Your task to perform on an android device: Is it going to rain today? Image 0: 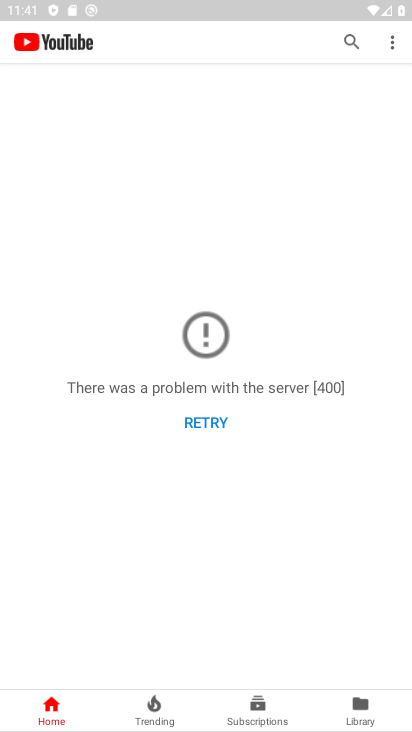
Step 0: press home button
Your task to perform on an android device: Is it going to rain today? Image 1: 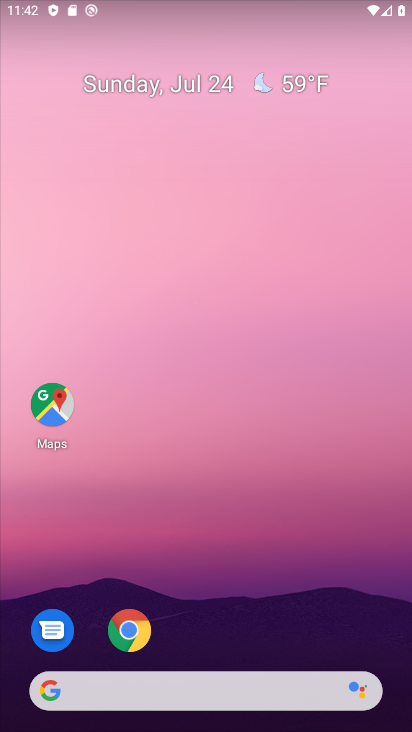
Step 1: drag from (219, 673) to (191, 342)
Your task to perform on an android device: Is it going to rain today? Image 2: 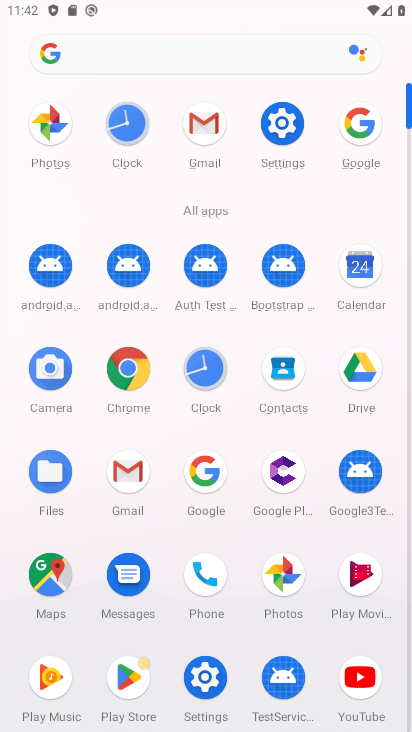
Step 2: click (356, 130)
Your task to perform on an android device: Is it going to rain today? Image 3: 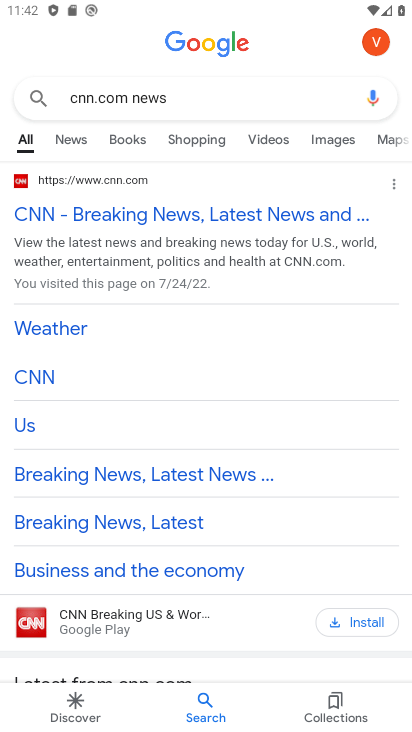
Step 3: click (195, 92)
Your task to perform on an android device: Is it going to rain today? Image 4: 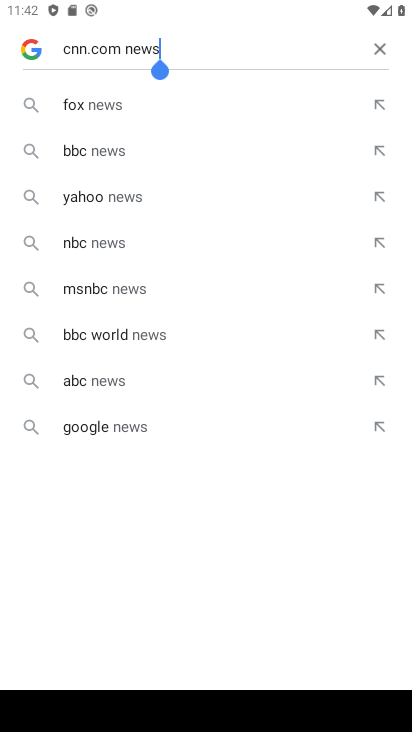
Step 4: click (379, 51)
Your task to perform on an android device: Is it going to rain today? Image 5: 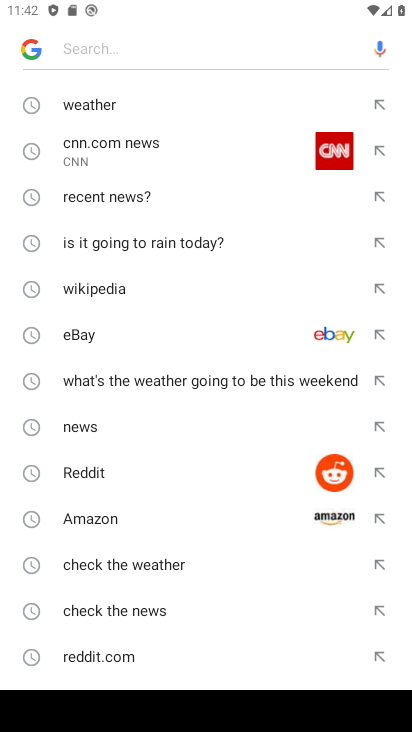
Step 5: click (119, 239)
Your task to perform on an android device: Is it going to rain today? Image 6: 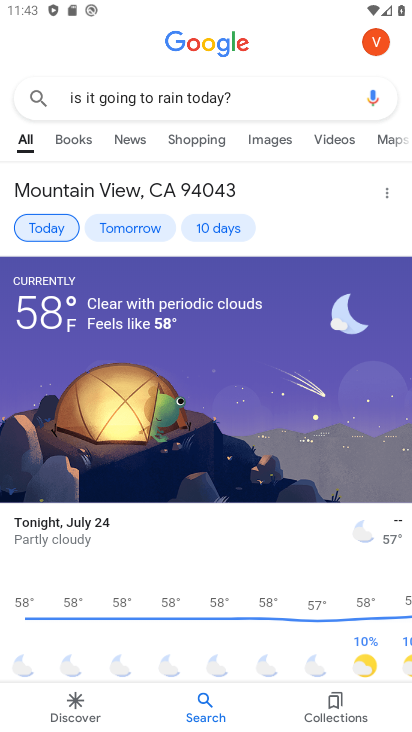
Step 6: task complete